Your task to perform on an android device: change notification settings in the gmail app Image 0: 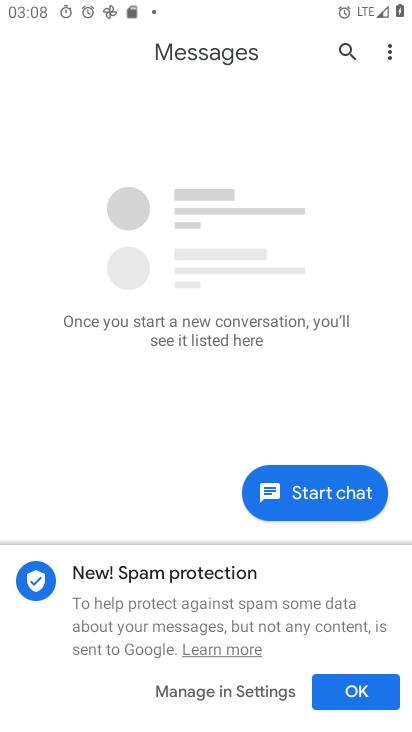
Step 0: press home button
Your task to perform on an android device: change notification settings in the gmail app Image 1: 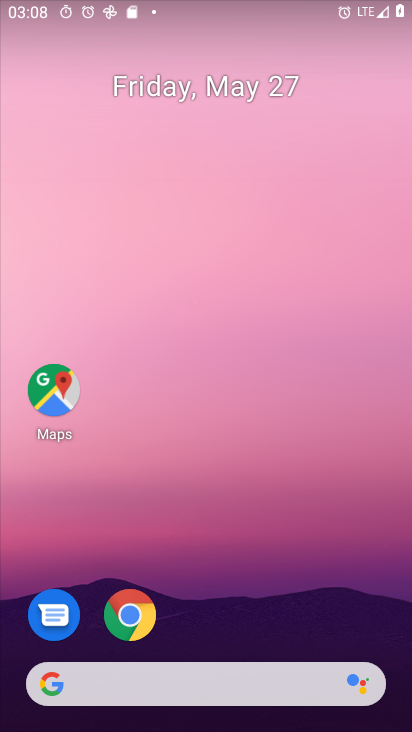
Step 1: drag from (372, 633) to (365, 186)
Your task to perform on an android device: change notification settings in the gmail app Image 2: 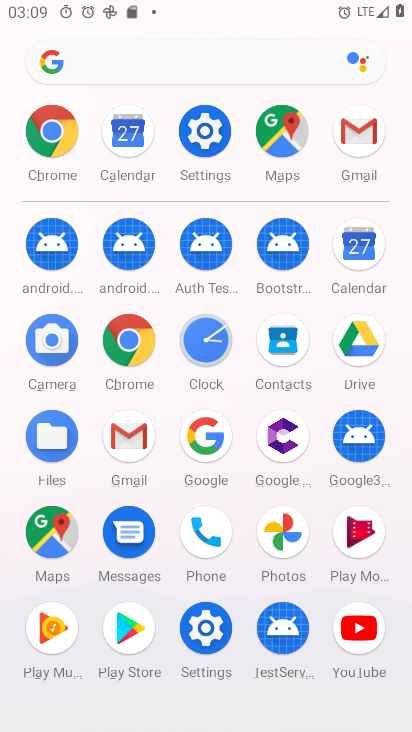
Step 2: click (134, 441)
Your task to perform on an android device: change notification settings in the gmail app Image 3: 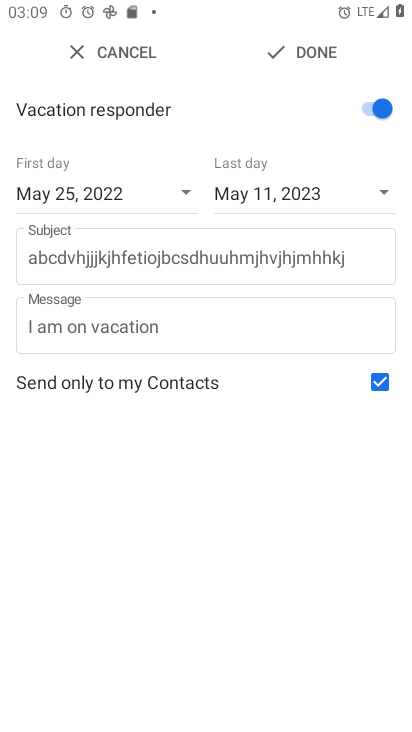
Step 3: press back button
Your task to perform on an android device: change notification settings in the gmail app Image 4: 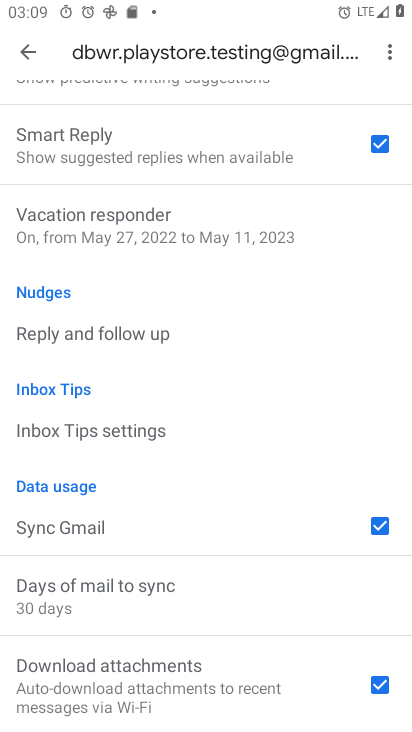
Step 4: drag from (322, 227) to (310, 355)
Your task to perform on an android device: change notification settings in the gmail app Image 5: 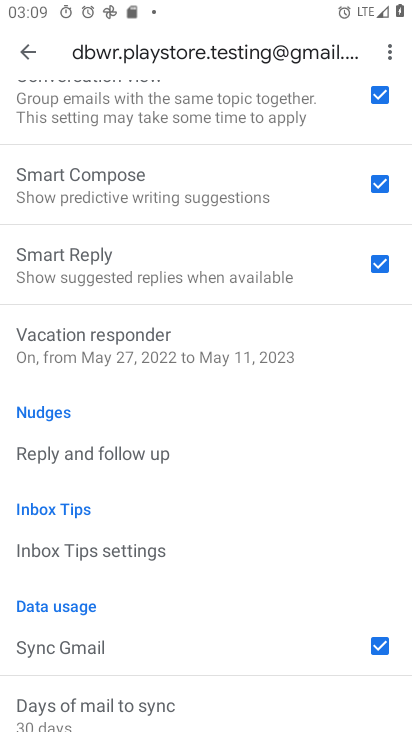
Step 5: drag from (307, 213) to (299, 382)
Your task to perform on an android device: change notification settings in the gmail app Image 6: 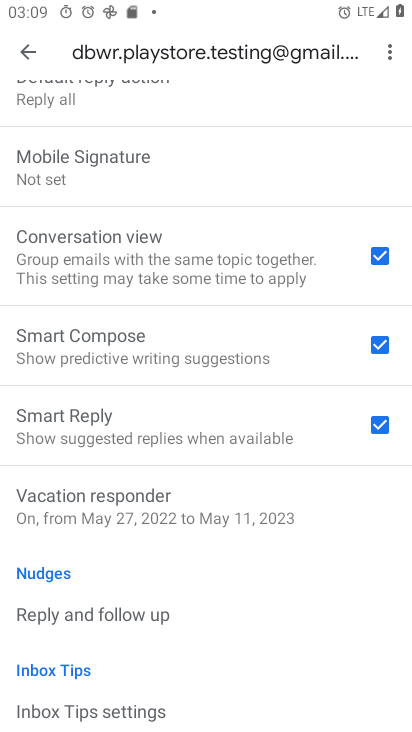
Step 6: drag from (314, 203) to (337, 372)
Your task to perform on an android device: change notification settings in the gmail app Image 7: 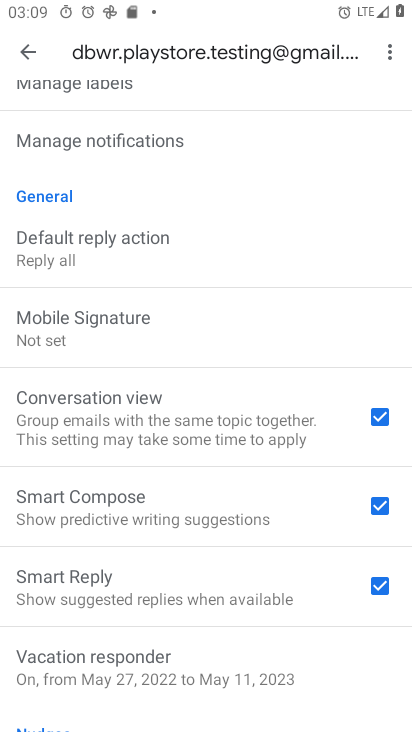
Step 7: drag from (308, 259) to (305, 390)
Your task to perform on an android device: change notification settings in the gmail app Image 8: 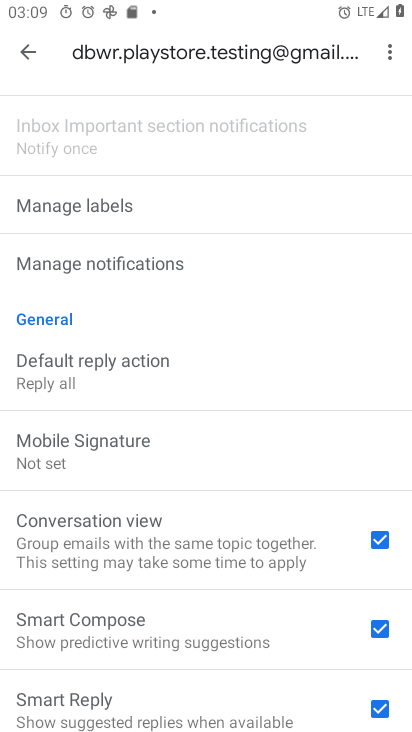
Step 8: drag from (286, 260) to (282, 395)
Your task to perform on an android device: change notification settings in the gmail app Image 9: 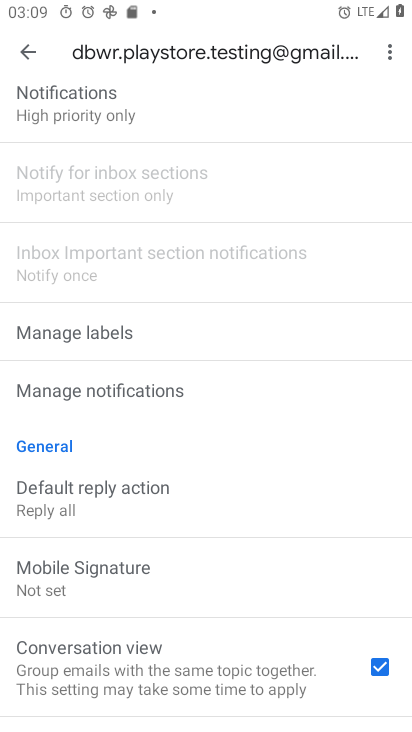
Step 9: drag from (265, 207) to (251, 412)
Your task to perform on an android device: change notification settings in the gmail app Image 10: 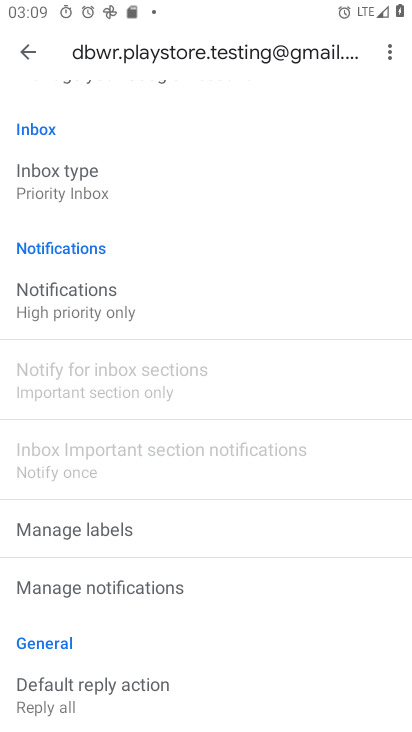
Step 10: drag from (219, 263) to (220, 407)
Your task to perform on an android device: change notification settings in the gmail app Image 11: 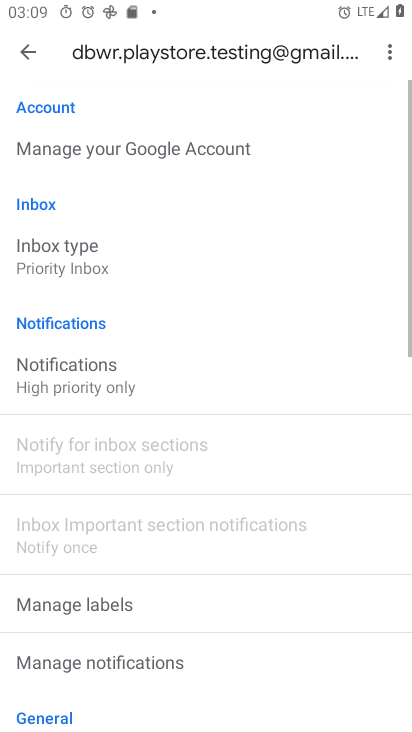
Step 11: click (122, 397)
Your task to perform on an android device: change notification settings in the gmail app Image 12: 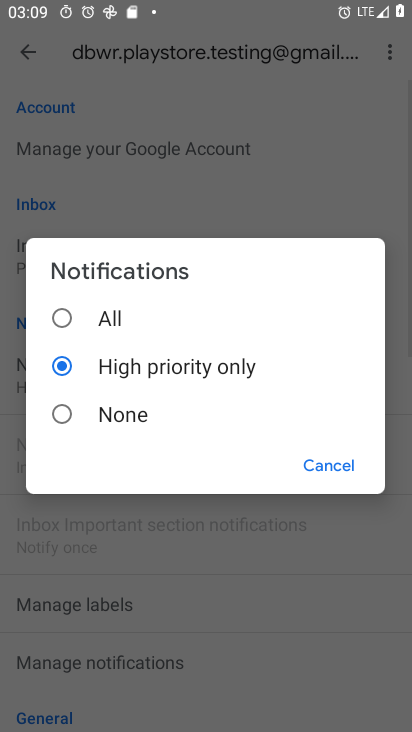
Step 12: click (115, 326)
Your task to perform on an android device: change notification settings in the gmail app Image 13: 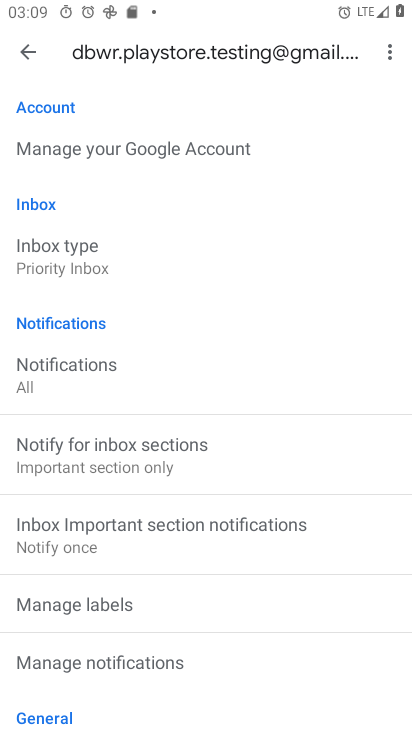
Step 13: task complete